Your task to perform on an android device: toggle improve location accuracy Image 0: 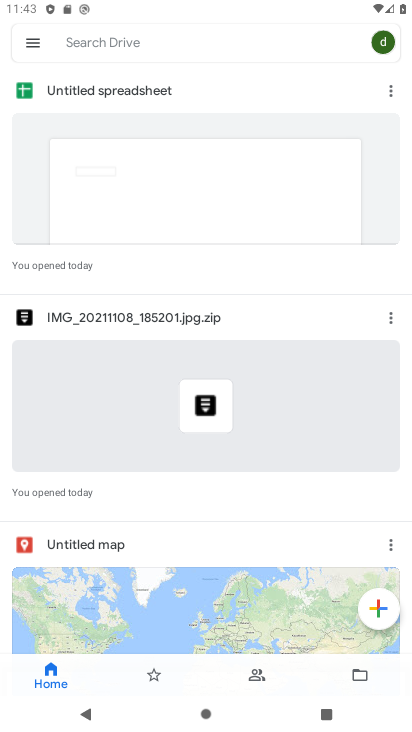
Step 0: press back button
Your task to perform on an android device: toggle improve location accuracy Image 1: 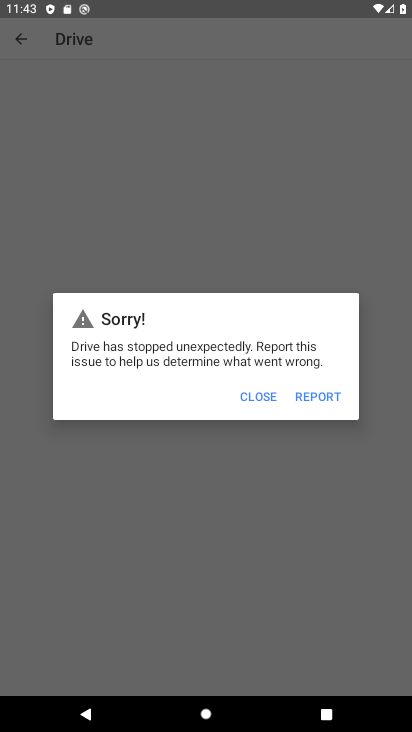
Step 1: press home button
Your task to perform on an android device: toggle improve location accuracy Image 2: 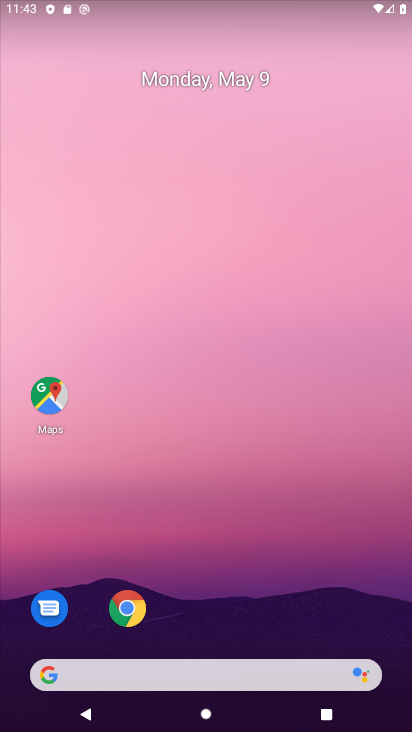
Step 2: drag from (218, 550) to (197, 20)
Your task to perform on an android device: toggle improve location accuracy Image 3: 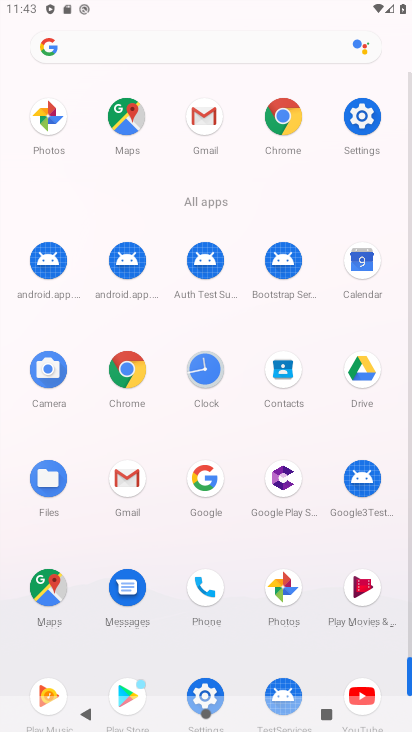
Step 3: click (360, 110)
Your task to perform on an android device: toggle improve location accuracy Image 4: 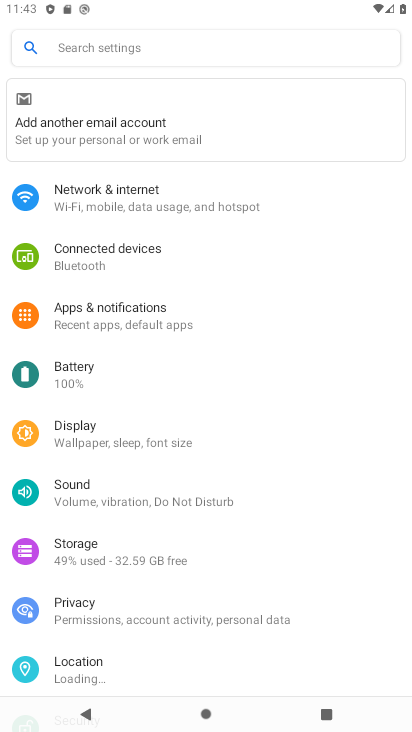
Step 4: drag from (247, 547) to (243, 187)
Your task to perform on an android device: toggle improve location accuracy Image 5: 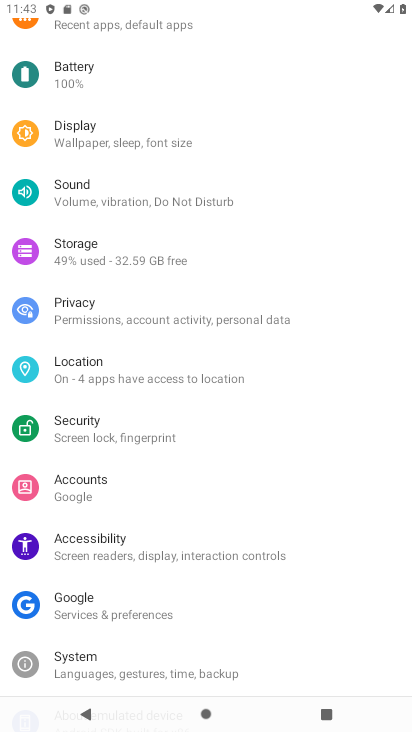
Step 5: click (137, 374)
Your task to perform on an android device: toggle improve location accuracy Image 6: 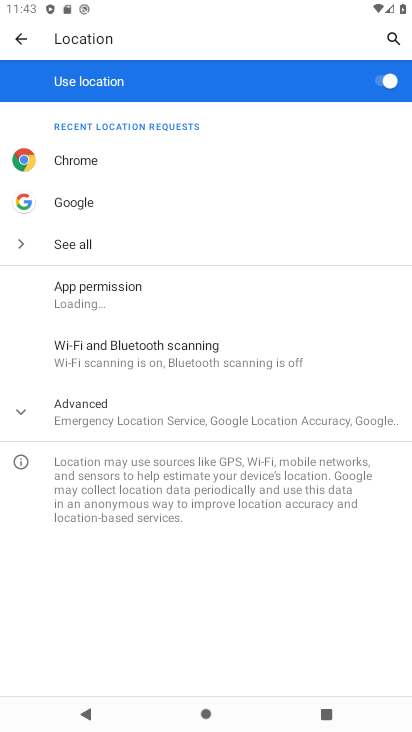
Step 6: click (121, 391)
Your task to perform on an android device: toggle improve location accuracy Image 7: 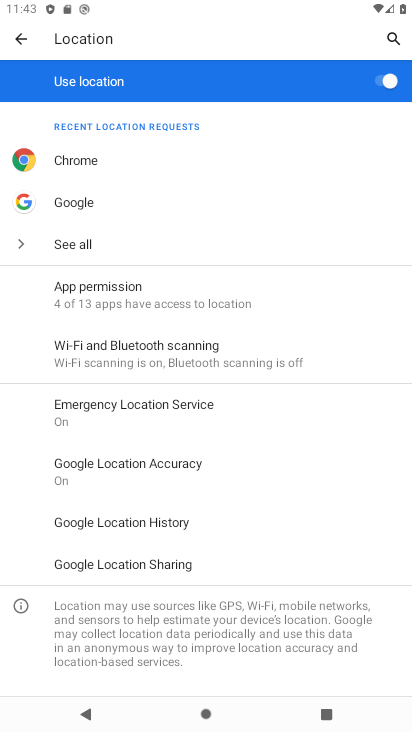
Step 7: click (154, 475)
Your task to perform on an android device: toggle improve location accuracy Image 8: 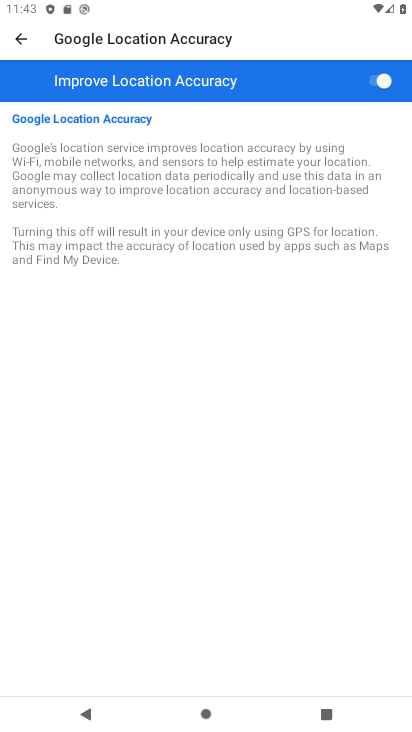
Step 8: click (371, 80)
Your task to perform on an android device: toggle improve location accuracy Image 9: 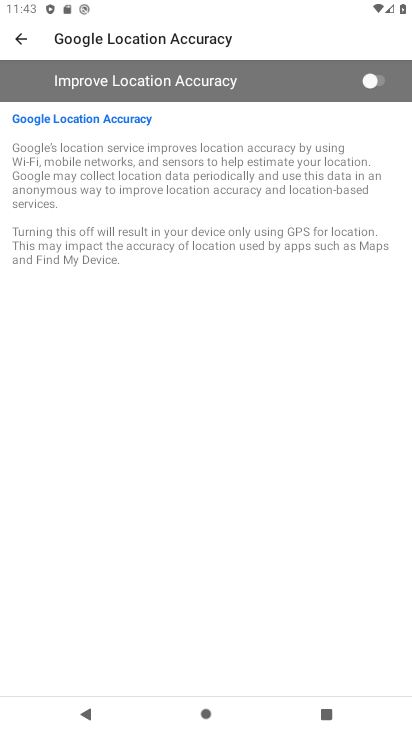
Step 9: task complete